Your task to perform on an android device: turn on translation in the chrome app Image 0: 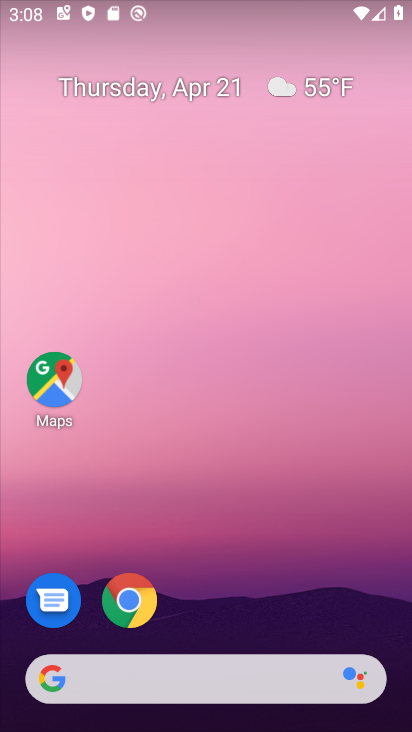
Step 0: drag from (205, 668) to (347, 79)
Your task to perform on an android device: turn on translation in the chrome app Image 1: 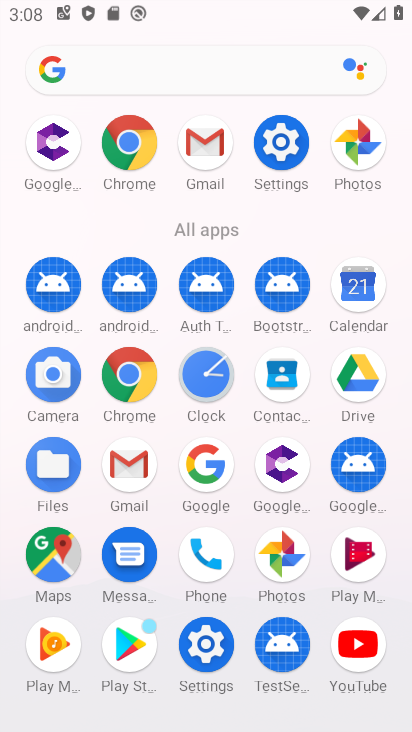
Step 1: click (132, 162)
Your task to perform on an android device: turn on translation in the chrome app Image 2: 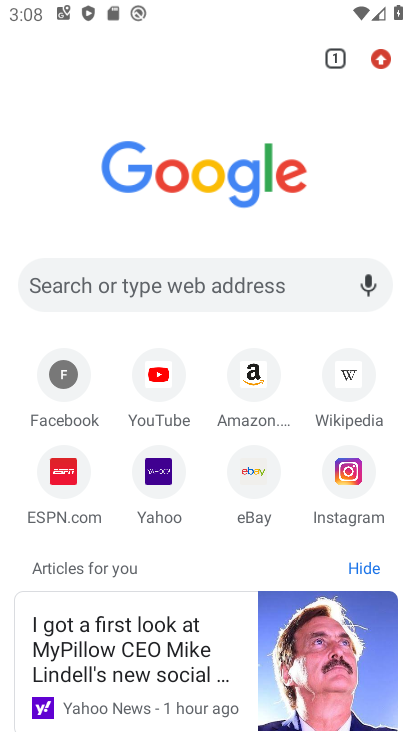
Step 2: click (372, 68)
Your task to perform on an android device: turn on translation in the chrome app Image 3: 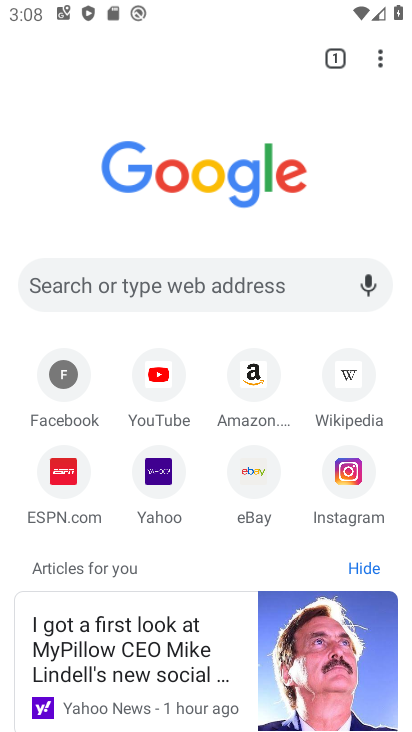
Step 3: click (372, 68)
Your task to perform on an android device: turn on translation in the chrome app Image 4: 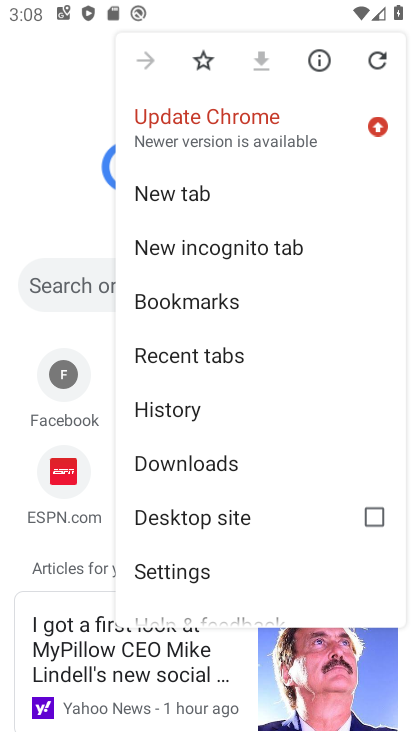
Step 4: click (187, 569)
Your task to perform on an android device: turn on translation in the chrome app Image 5: 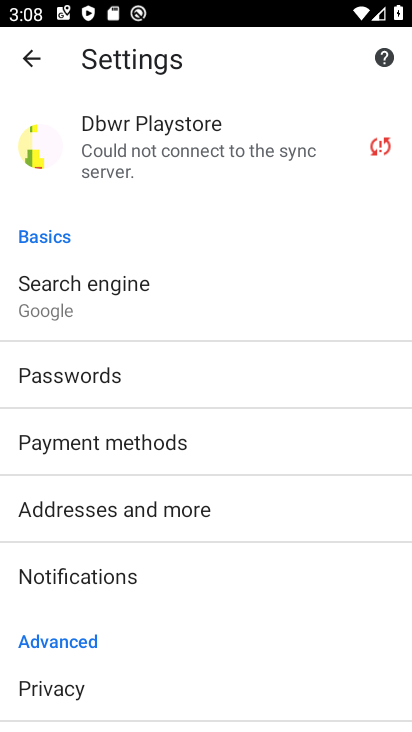
Step 5: drag from (139, 657) to (280, 298)
Your task to perform on an android device: turn on translation in the chrome app Image 6: 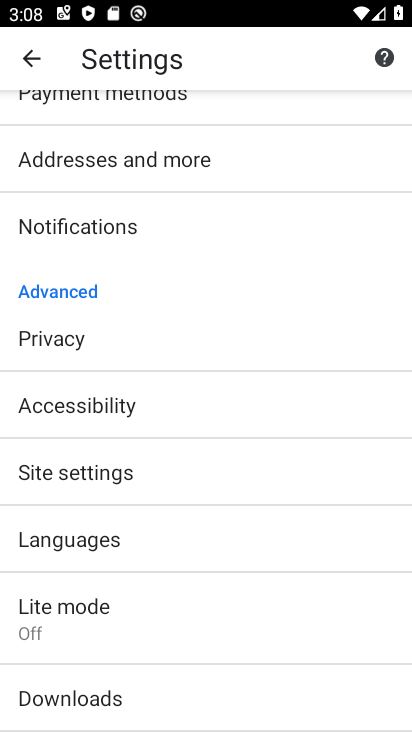
Step 6: click (89, 543)
Your task to perform on an android device: turn on translation in the chrome app Image 7: 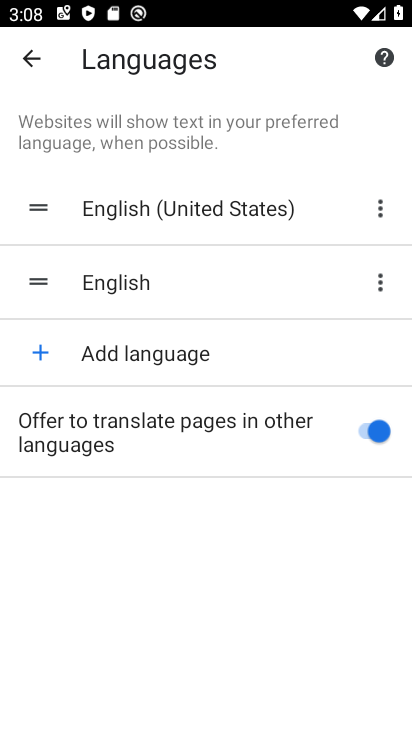
Step 7: task complete